Your task to perform on an android device: Open CNN.com Image 0: 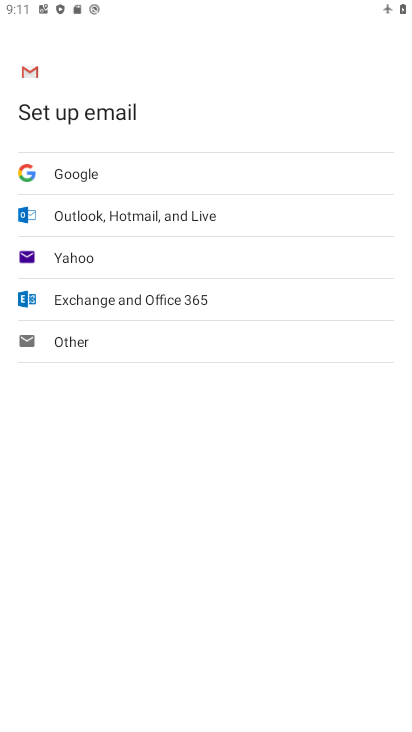
Step 0: press home button
Your task to perform on an android device: Open CNN.com Image 1: 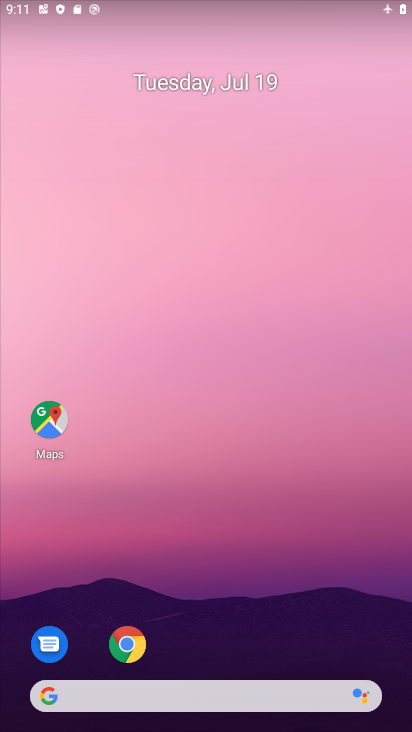
Step 1: click (123, 628)
Your task to perform on an android device: Open CNN.com Image 2: 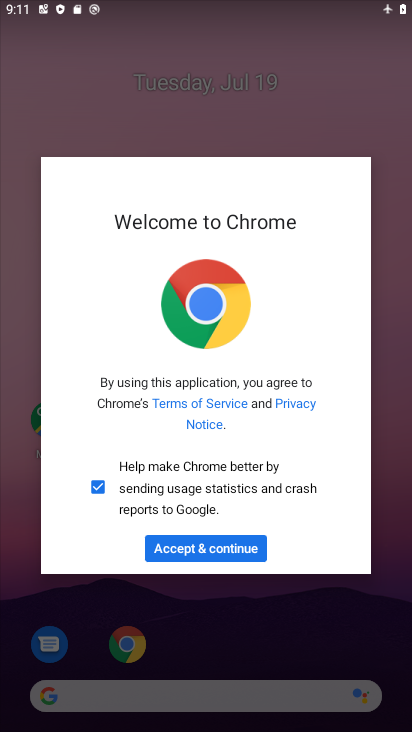
Step 2: click (214, 545)
Your task to perform on an android device: Open CNN.com Image 3: 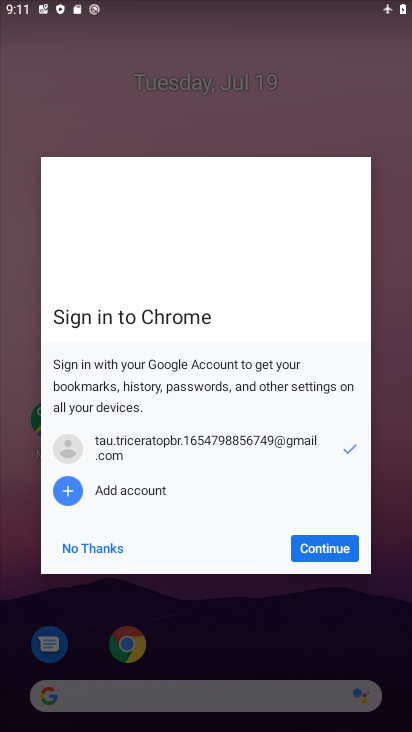
Step 3: click (351, 545)
Your task to perform on an android device: Open CNN.com Image 4: 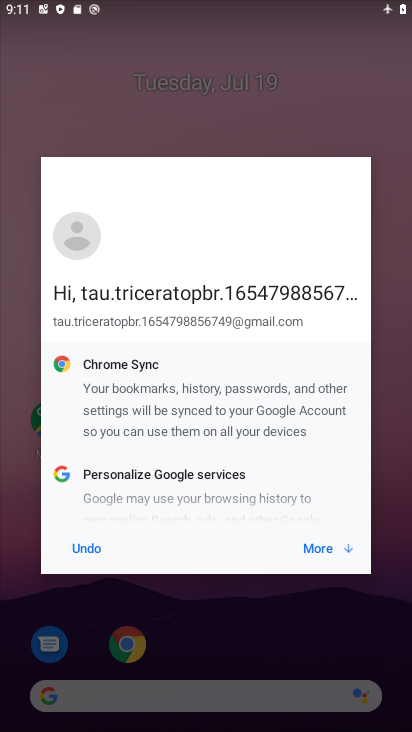
Step 4: click (351, 545)
Your task to perform on an android device: Open CNN.com Image 5: 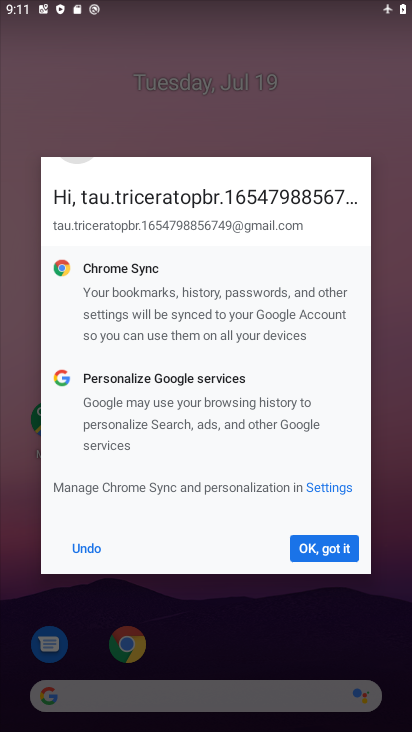
Step 5: click (351, 545)
Your task to perform on an android device: Open CNN.com Image 6: 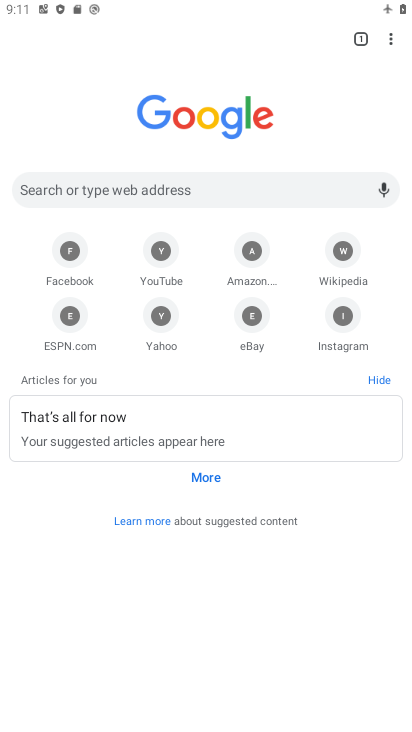
Step 6: click (253, 188)
Your task to perform on an android device: Open CNN.com Image 7: 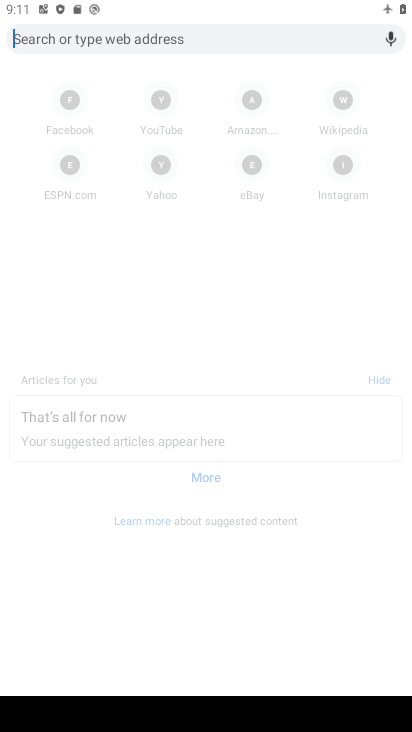
Step 7: type "cnn"
Your task to perform on an android device: Open CNN.com Image 8: 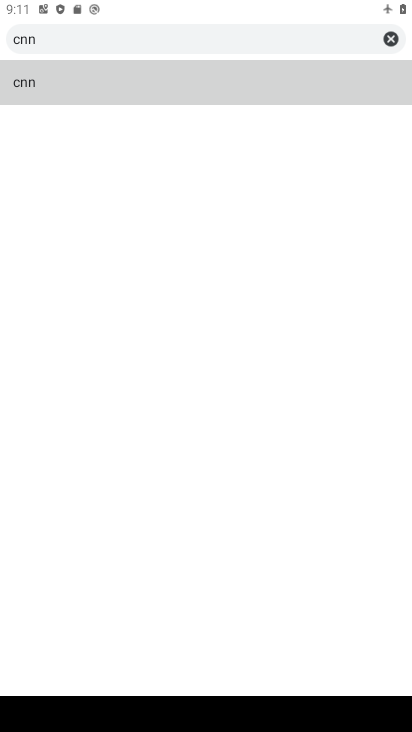
Step 8: click (85, 94)
Your task to perform on an android device: Open CNN.com Image 9: 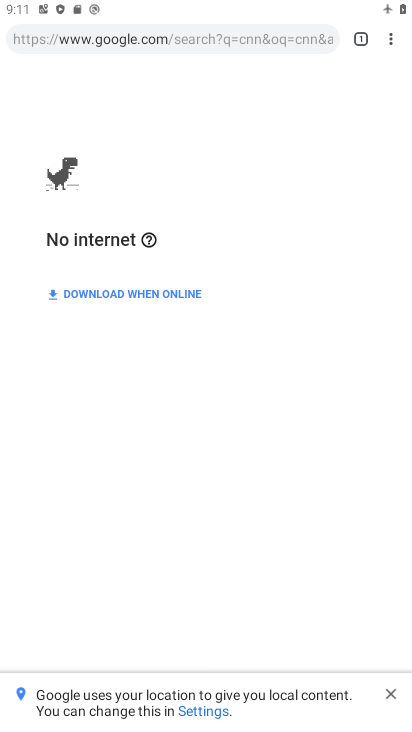
Step 9: task complete